Your task to perform on an android device: delete a single message in the gmail app Image 0: 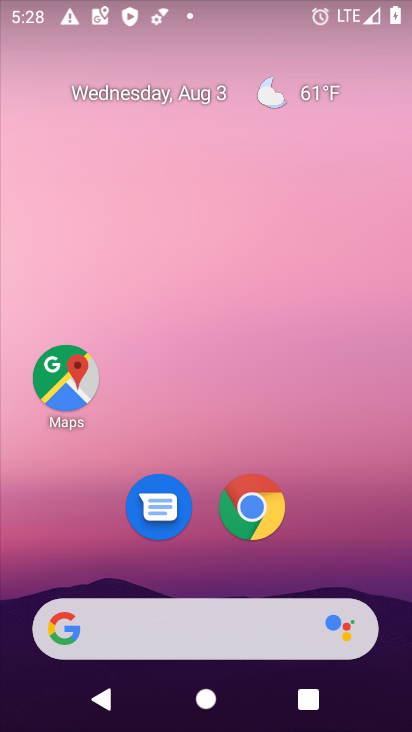
Step 0: drag from (325, 274) to (339, 23)
Your task to perform on an android device: delete a single message in the gmail app Image 1: 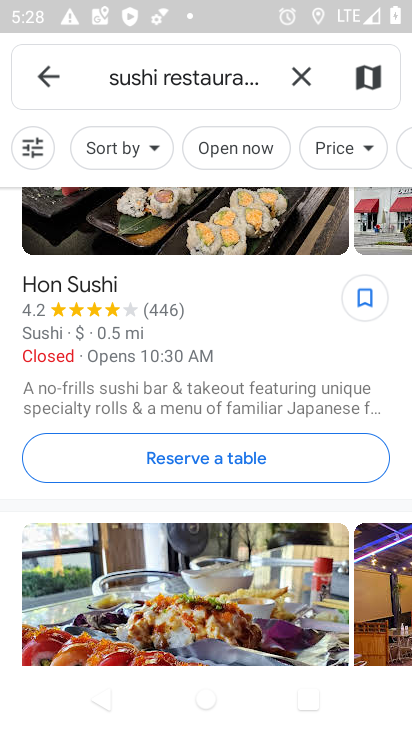
Step 1: press home button
Your task to perform on an android device: delete a single message in the gmail app Image 2: 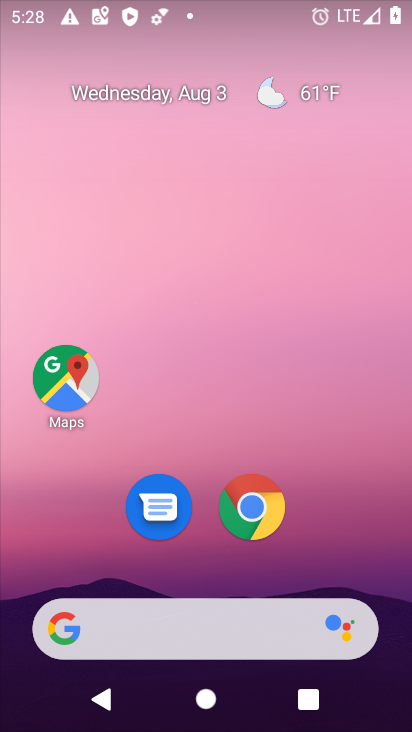
Step 2: drag from (336, 483) to (309, 15)
Your task to perform on an android device: delete a single message in the gmail app Image 3: 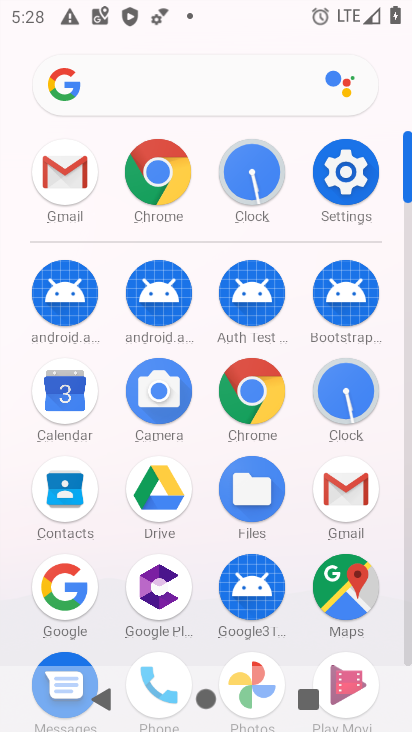
Step 3: click (356, 493)
Your task to perform on an android device: delete a single message in the gmail app Image 4: 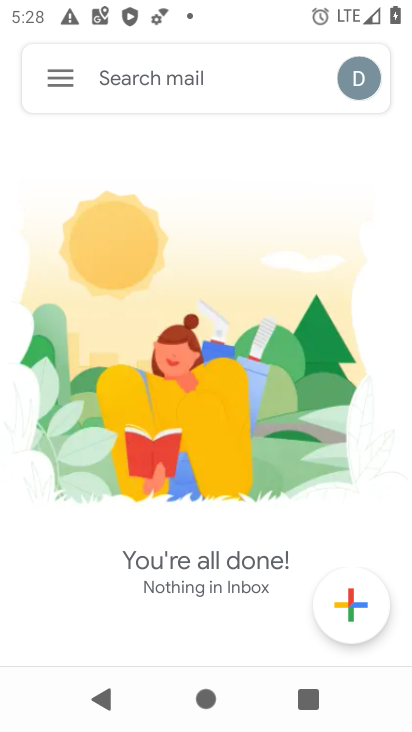
Step 4: click (48, 72)
Your task to perform on an android device: delete a single message in the gmail app Image 5: 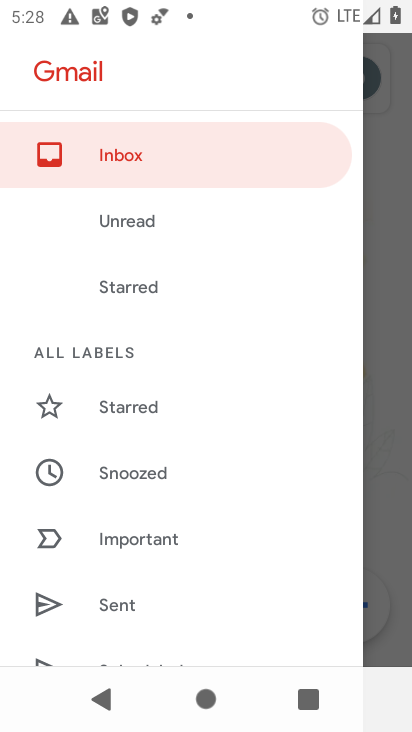
Step 5: drag from (177, 543) to (294, 19)
Your task to perform on an android device: delete a single message in the gmail app Image 6: 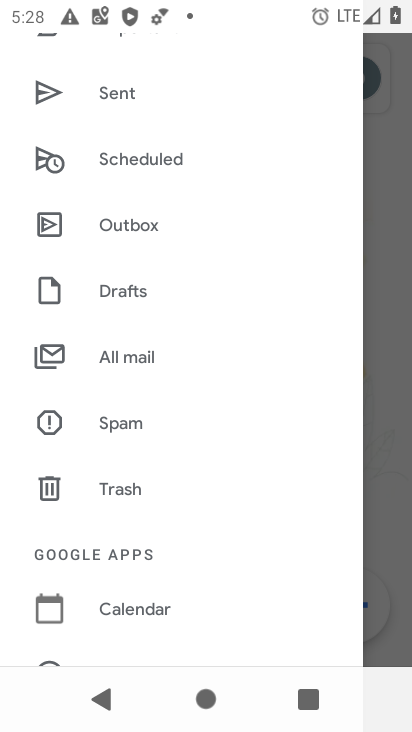
Step 6: drag from (199, 446) to (293, 77)
Your task to perform on an android device: delete a single message in the gmail app Image 7: 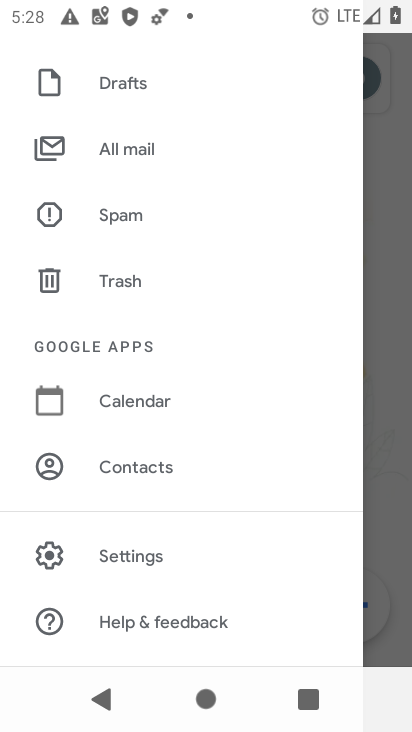
Step 7: click (136, 163)
Your task to perform on an android device: delete a single message in the gmail app Image 8: 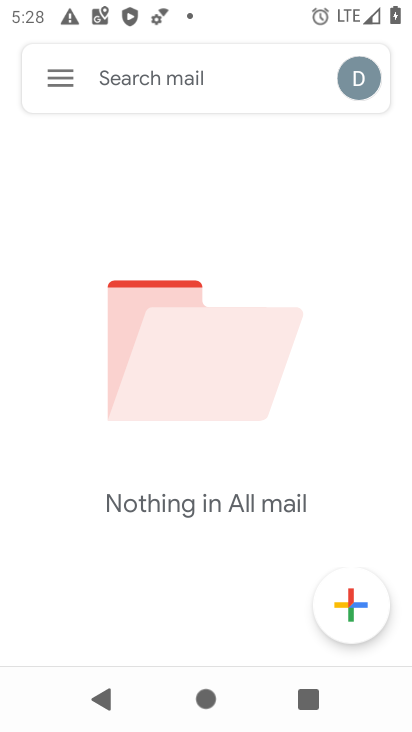
Step 8: task complete